Your task to perform on an android device: open a bookmark in the chrome app Image 0: 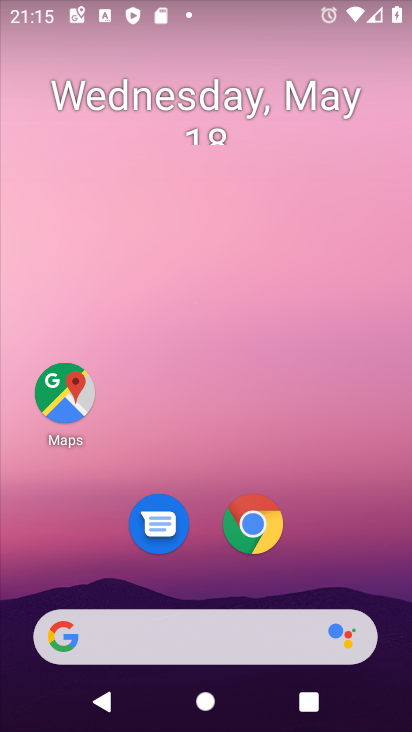
Step 0: click (261, 519)
Your task to perform on an android device: open a bookmark in the chrome app Image 1: 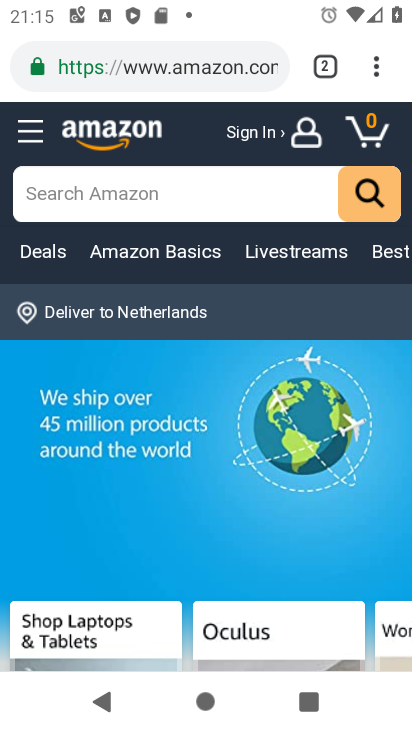
Step 1: click (374, 63)
Your task to perform on an android device: open a bookmark in the chrome app Image 2: 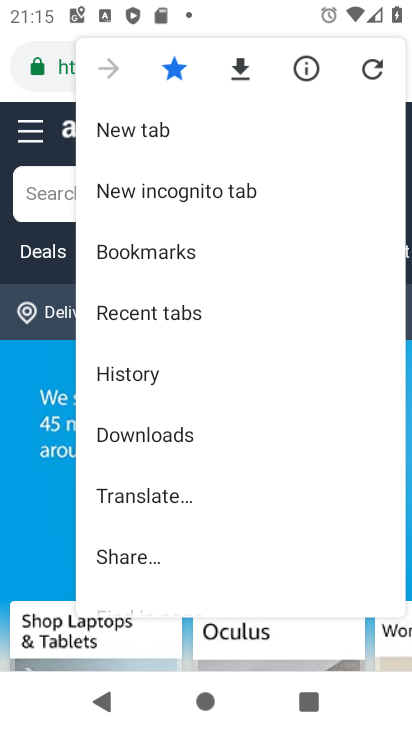
Step 2: click (186, 251)
Your task to perform on an android device: open a bookmark in the chrome app Image 3: 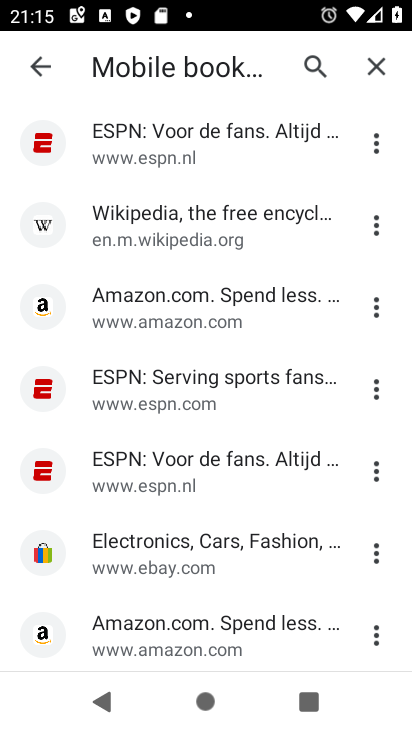
Step 3: click (189, 219)
Your task to perform on an android device: open a bookmark in the chrome app Image 4: 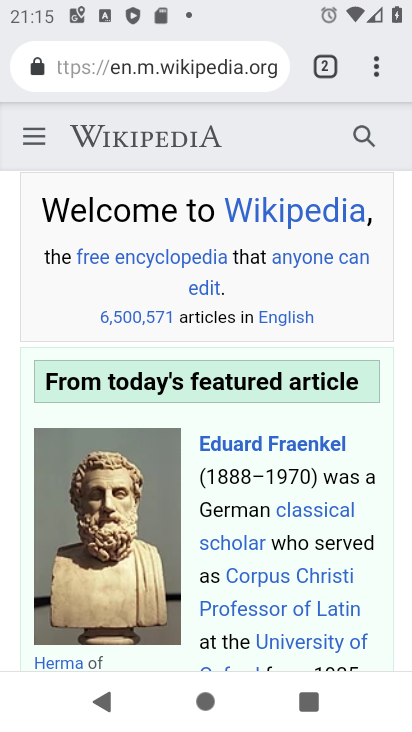
Step 4: task complete